Your task to perform on an android device: Open accessibility settings Image 0: 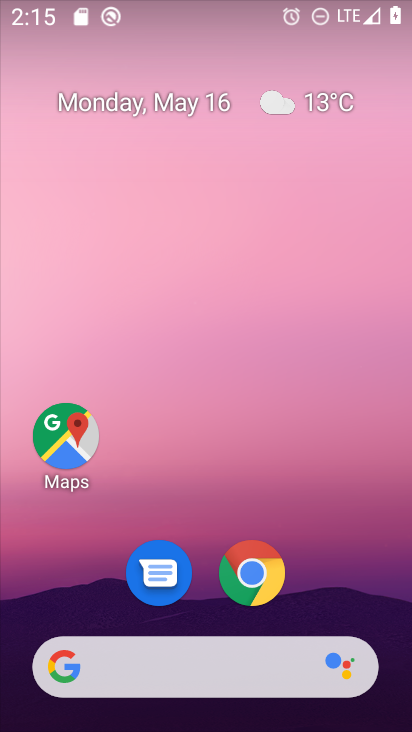
Step 0: drag from (211, 677) to (225, 294)
Your task to perform on an android device: Open accessibility settings Image 1: 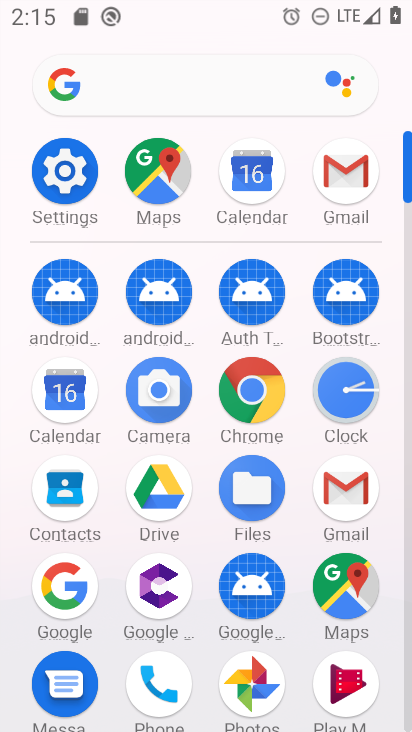
Step 1: click (72, 188)
Your task to perform on an android device: Open accessibility settings Image 2: 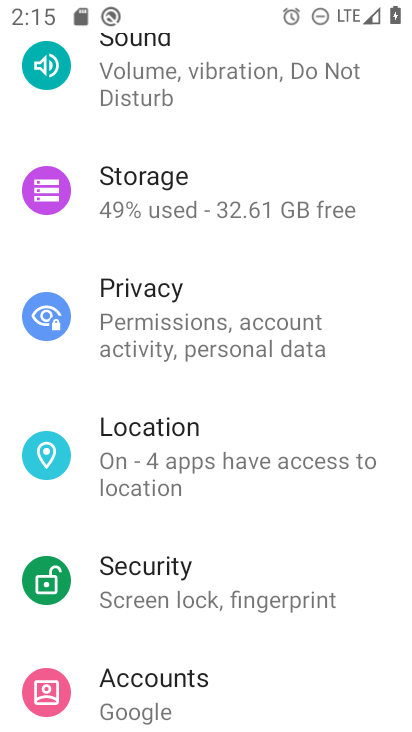
Step 2: drag from (122, 514) to (178, 204)
Your task to perform on an android device: Open accessibility settings Image 3: 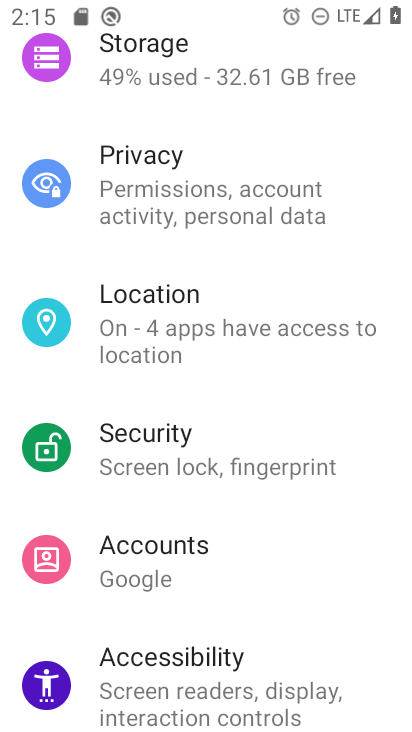
Step 3: click (152, 704)
Your task to perform on an android device: Open accessibility settings Image 4: 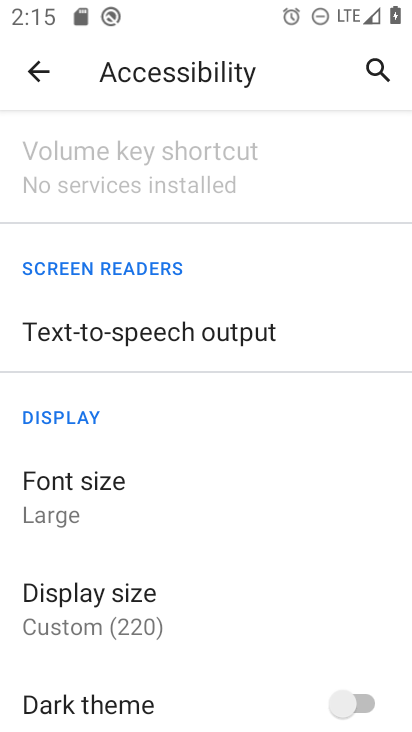
Step 4: task complete